Your task to perform on an android device: find photos in the google photos app Image 0: 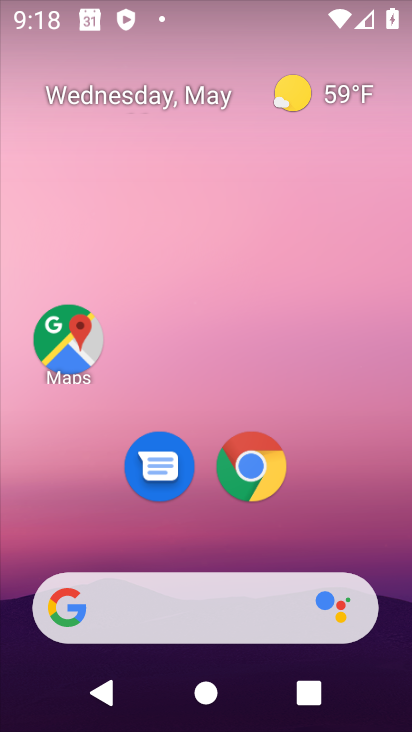
Step 0: drag from (321, 537) to (336, 211)
Your task to perform on an android device: find photos in the google photos app Image 1: 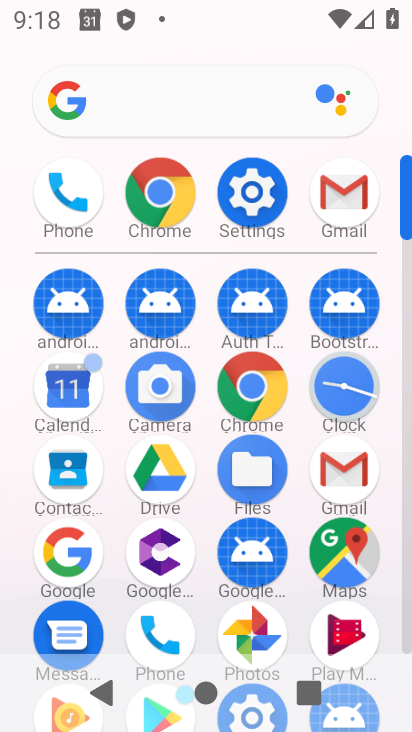
Step 1: click (239, 626)
Your task to perform on an android device: find photos in the google photos app Image 2: 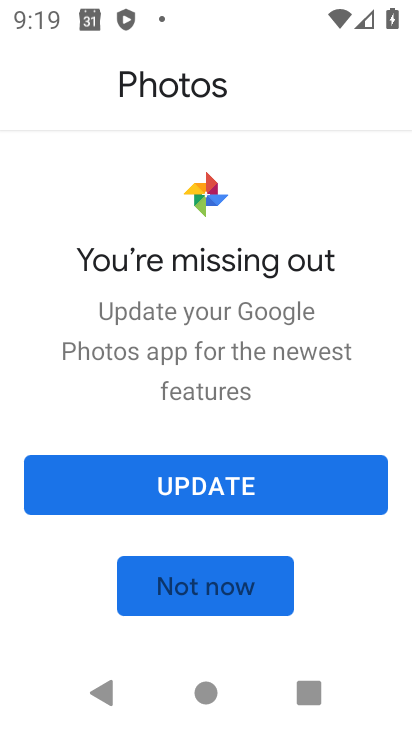
Step 2: click (228, 587)
Your task to perform on an android device: find photos in the google photos app Image 3: 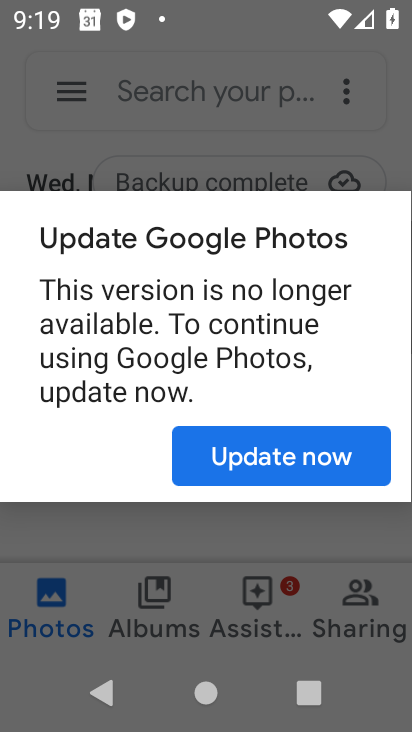
Step 3: click (224, 450)
Your task to perform on an android device: find photos in the google photos app Image 4: 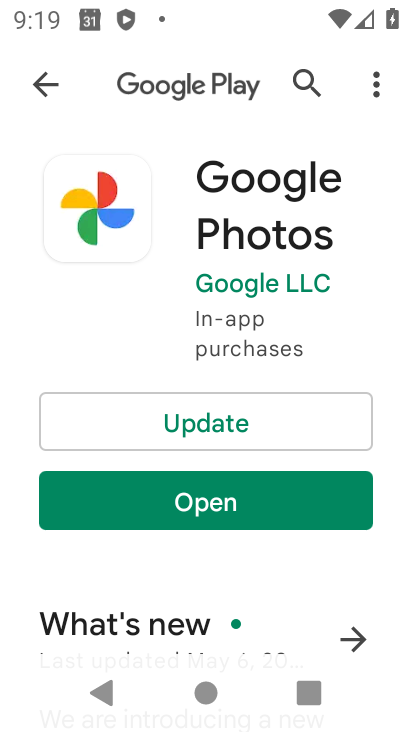
Step 4: task complete